Your task to perform on an android device: Show me popular games on the Play Store Image 0: 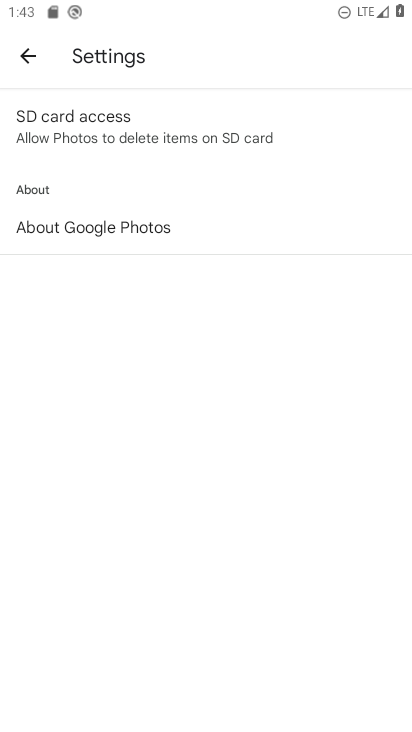
Step 0: press home button
Your task to perform on an android device: Show me popular games on the Play Store Image 1: 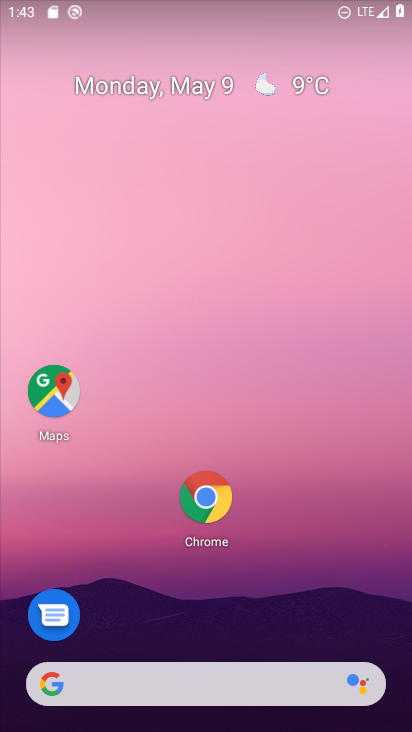
Step 1: drag from (293, 571) to (350, 127)
Your task to perform on an android device: Show me popular games on the Play Store Image 2: 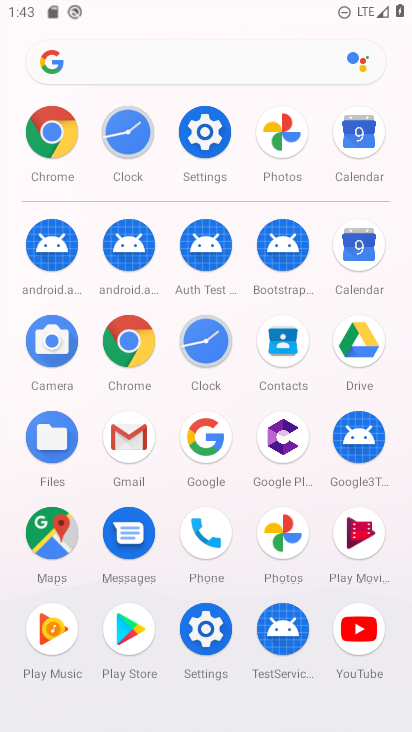
Step 2: click (140, 624)
Your task to perform on an android device: Show me popular games on the Play Store Image 3: 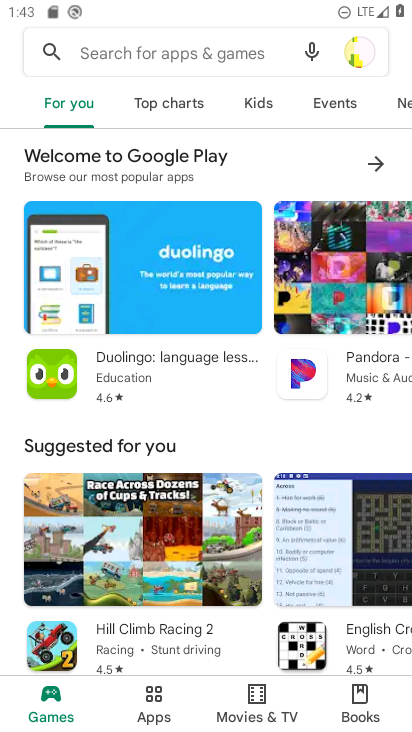
Step 3: drag from (258, 611) to (314, 17)
Your task to perform on an android device: Show me popular games on the Play Store Image 4: 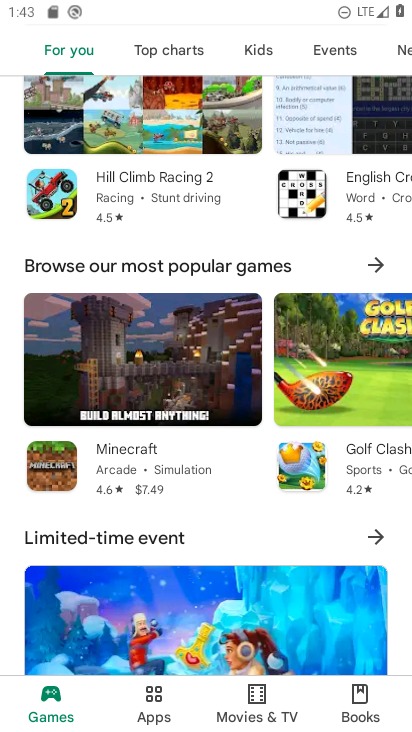
Step 4: drag from (196, 528) to (228, 0)
Your task to perform on an android device: Show me popular games on the Play Store Image 5: 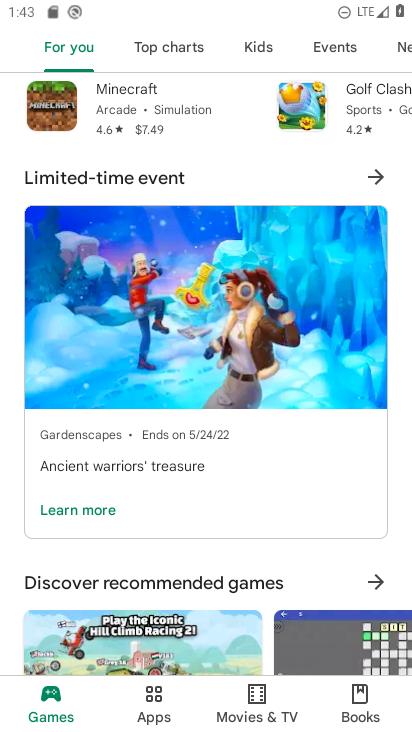
Step 5: drag from (198, 516) to (247, 20)
Your task to perform on an android device: Show me popular games on the Play Store Image 6: 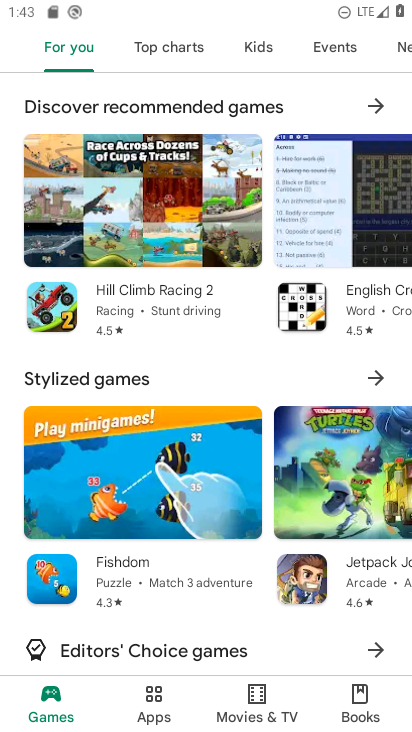
Step 6: drag from (201, 520) to (236, 149)
Your task to perform on an android device: Show me popular games on the Play Store Image 7: 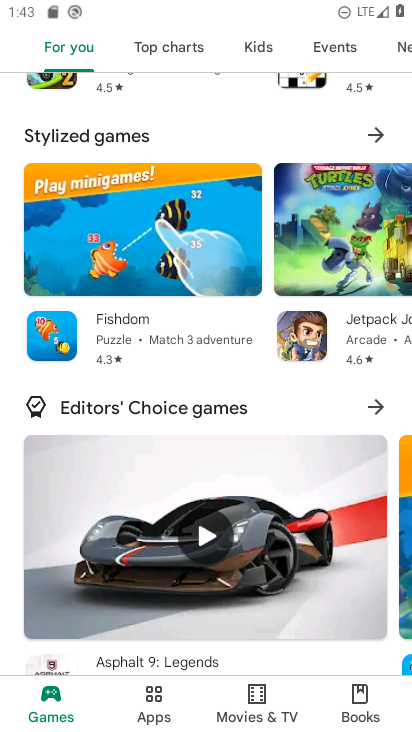
Step 7: drag from (179, 527) to (222, 141)
Your task to perform on an android device: Show me popular games on the Play Store Image 8: 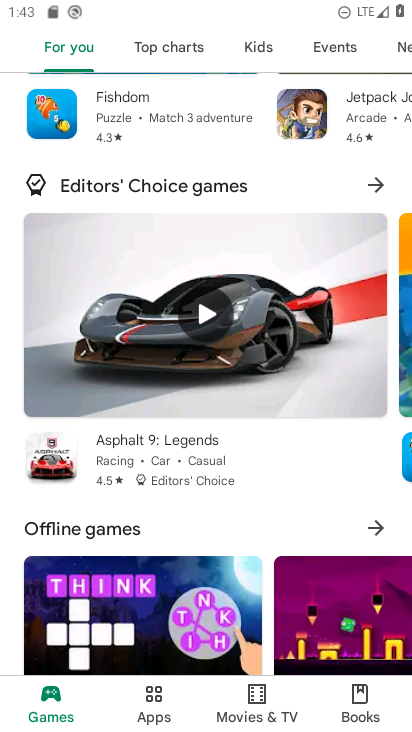
Step 8: drag from (170, 564) to (214, 182)
Your task to perform on an android device: Show me popular games on the Play Store Image 9: 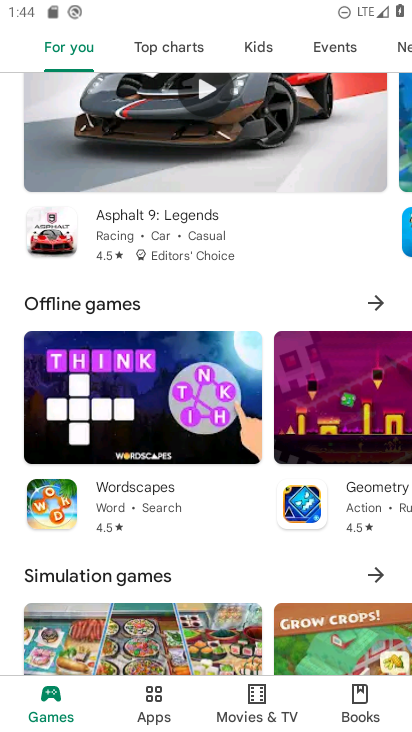
Step 9: drag from (225, 442) to (218, 148)
Your task to perform on an android device: Show me popular games on the Play Store Image 10: 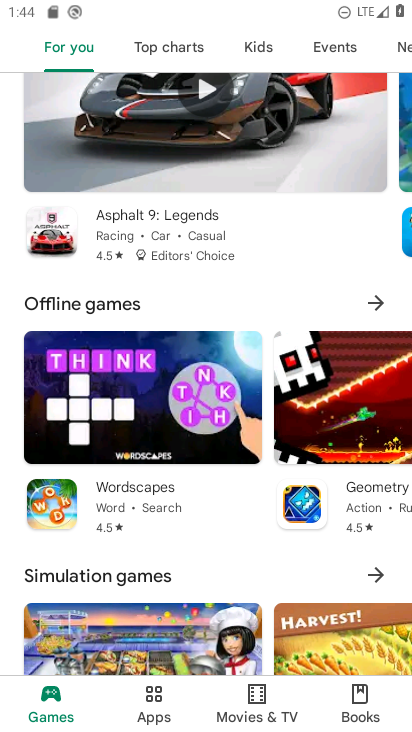
Step 10: drag from (256, 592) to (249, 129)
Your task to perform on an android device: Show me popular games on the Play Store Image 11: 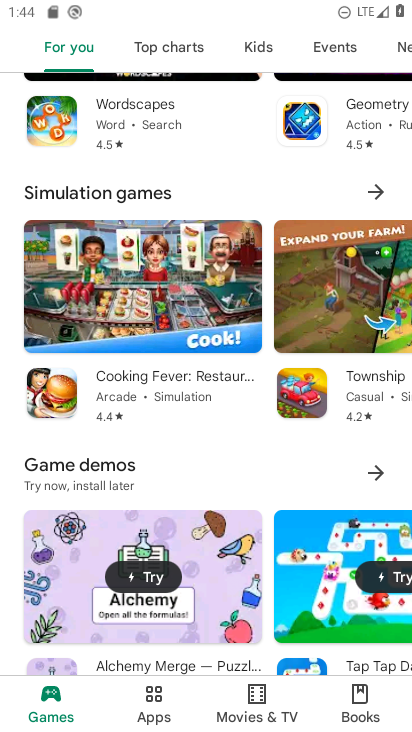
Step 11: drag from (254, 589) to (276, 72)
Your task to perform on an android device: Show me popular games on the Play Store Image 12: 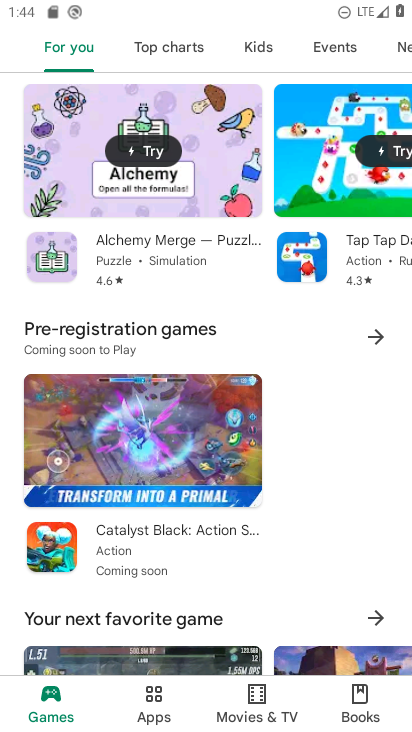
Step 12: drag from (235, 570) to (223, 99)
Your task to perform on an android device: Show me popular games on the Play Store Image 13: 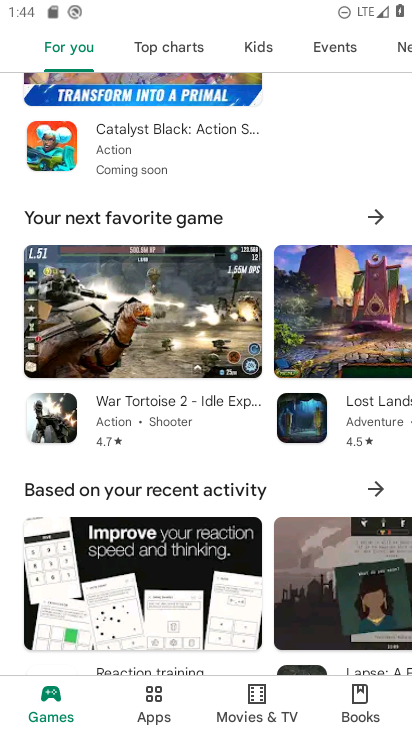
Step 13: drag from (235, 606) to (273, 167)
Your task to perform on an android device: Show me popular games on the Play Store Image 14: 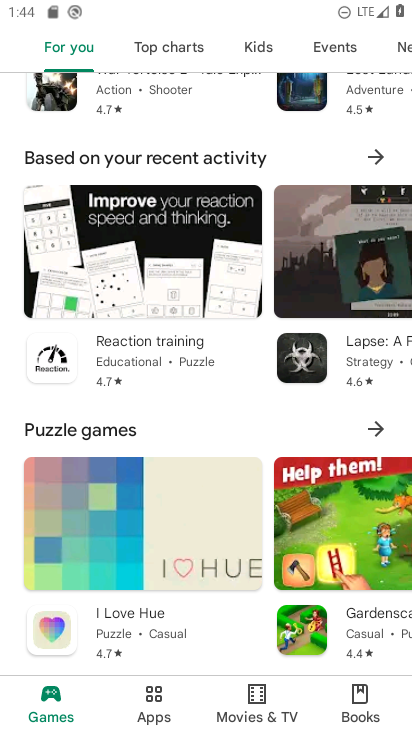
Step 14: drag from (241, 604) to (292, 190)
Your task to perform on an android device: Show me popular games on the Play Store Image 15: 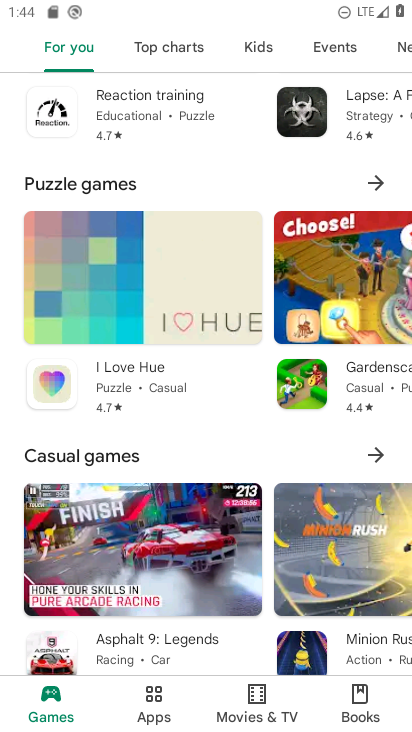
Step 15: drag from (213, 549) to (277, 155)
Your task to perform on an android device: Show me popular games on the Play Store Image 16: 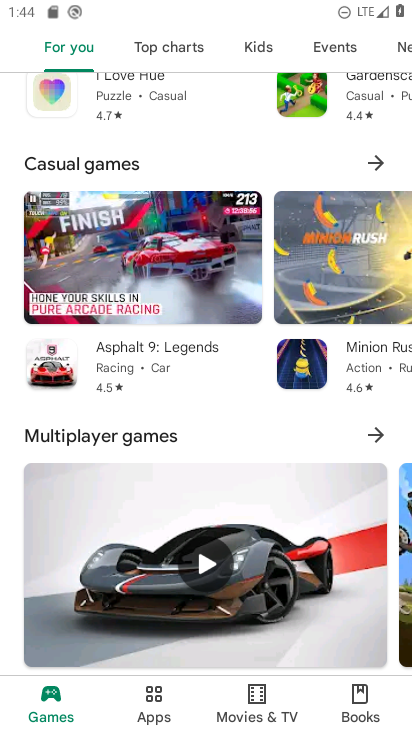
Step 16: drag from (259, 560) to (252, 192)
Your task to perform on an android device: Show me popular games on the Play Store Image 17: 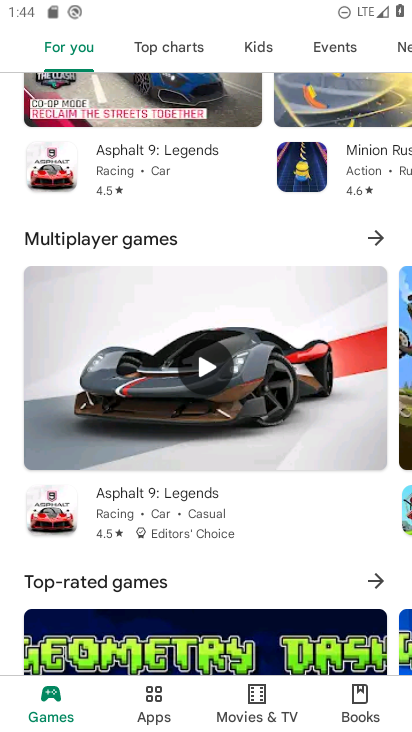
Step 17: drag from (237, 553) to (236, 236)
Your task to perform on an android device: Show me popular games on the Play Store Image 18: 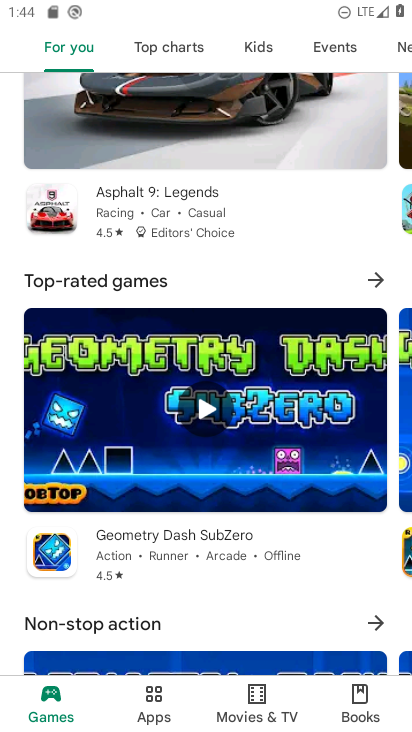
Step 18: drag from (236, 604) to (249, 34)
Your task to perform on an android device: Show me popular games on the Play Store Image 19: 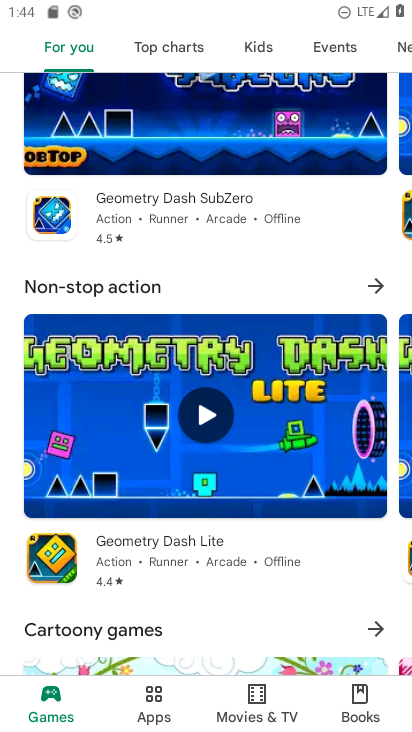
Step 19: drag from (179, 544) to (260, 88)
Your task to perform on an android device: Show me popular games on the Play Store Image 20: 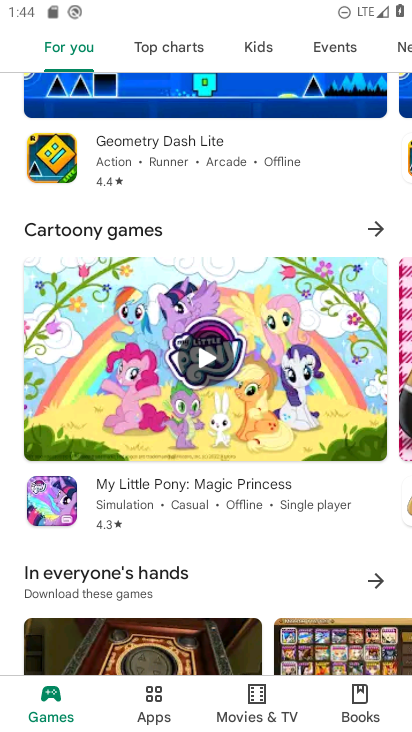
Step 20: drag from (228, 605) to (235, 160)
Your task to perform on an android device: Show me popular games on the Play Store Image 21: 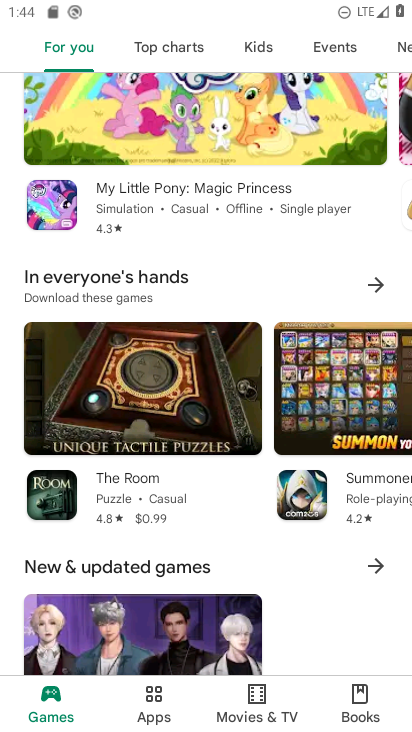
Step 21: drag from (267, 585) to (300, 10)
Your task to perform on an android device: Show me popular games on the Play Store Image 22: 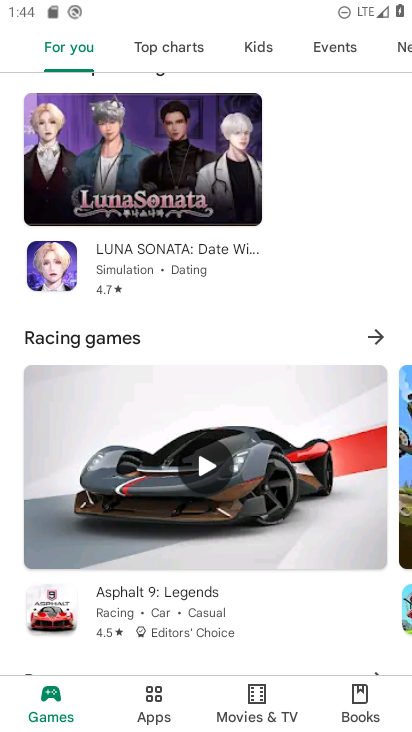
Step 22: drag from (235, 559) to (276, 44)
Your task to perform on an android device: Show me popular games on the Play Store Image 23: 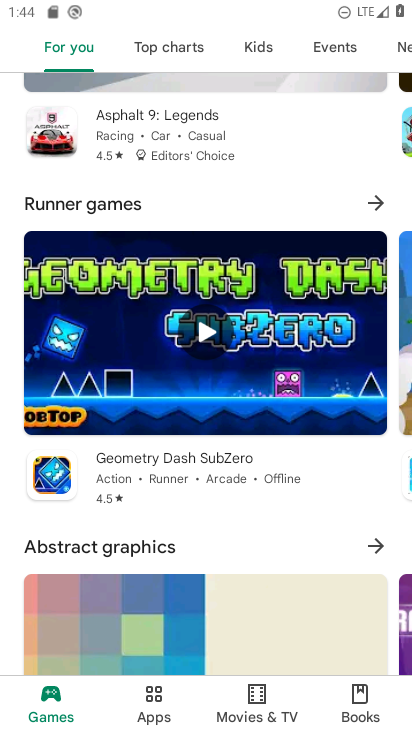
Step 23: click (269, 18)
Your task to perform on an android device: Show me popular games on the Play Store Image 24: 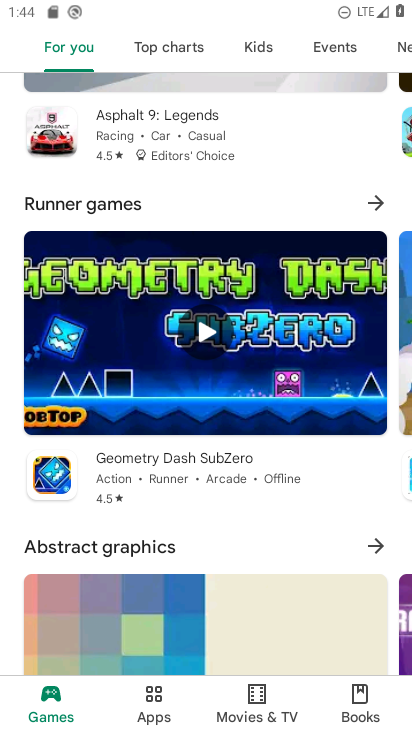
Step 24: task complete